Your task to perform on an android device: Search for Italian restaurants on Maps Image 0: 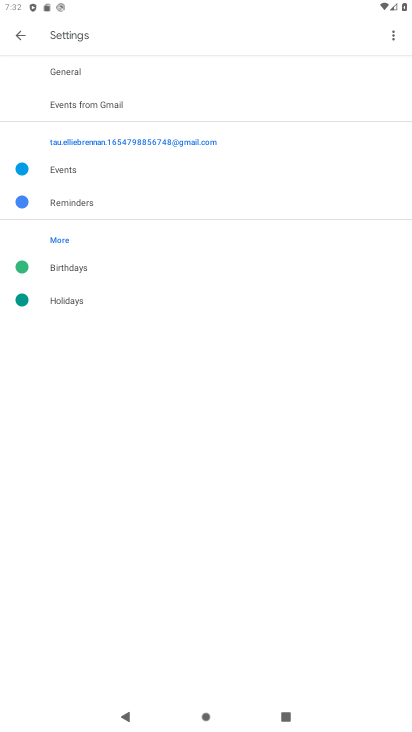
Step 0: press home button
Your task to perform on an android device: Search for Italian restaurants on Maps Image 1: 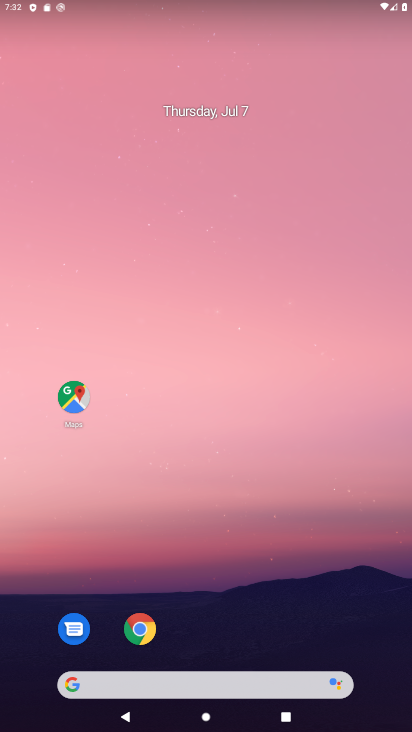
Step 1: drag from (361, 603) to (394, 81)
Your task to perform on an android device: Search for Italian restaurants on Maps Image 2: 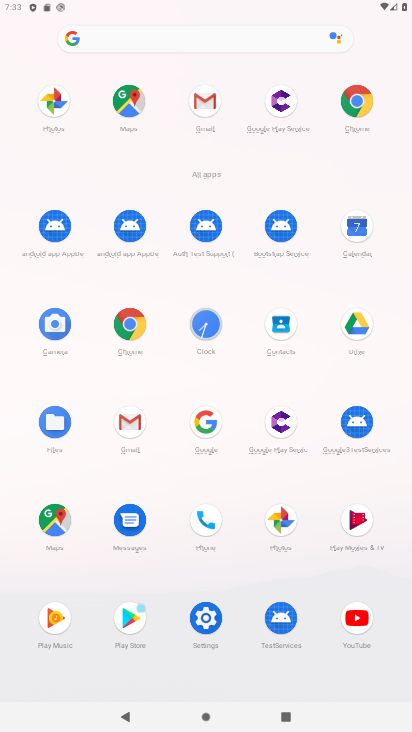
Step 2: click (58, 517)
Your task to perform on an android device: Search for Italian restaurants on Maps Image 3: 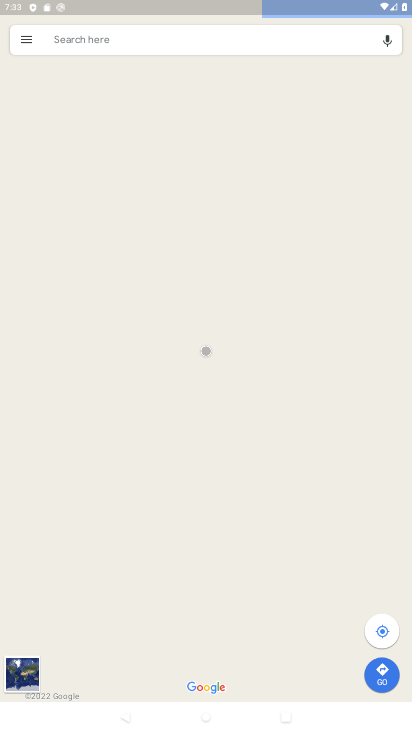
Step 3: click (187, 39)
Your task to perform on an android device: Search for Italian restaurants on Maps Image 4: 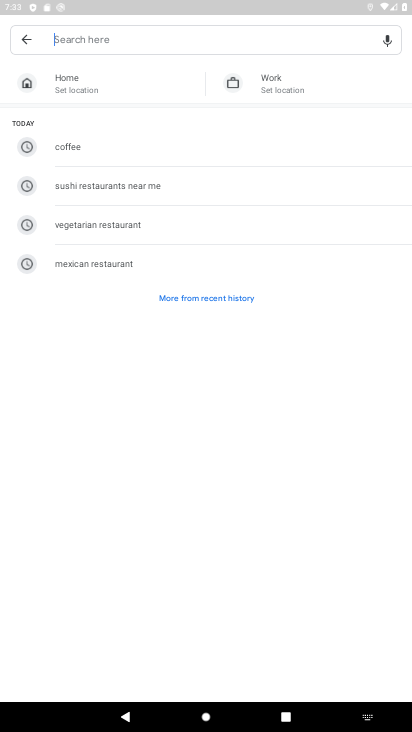
Step 4: type "italian restaurants"
Your task to perform on an android device: Search for Italian restaurants on Maps Image 5: 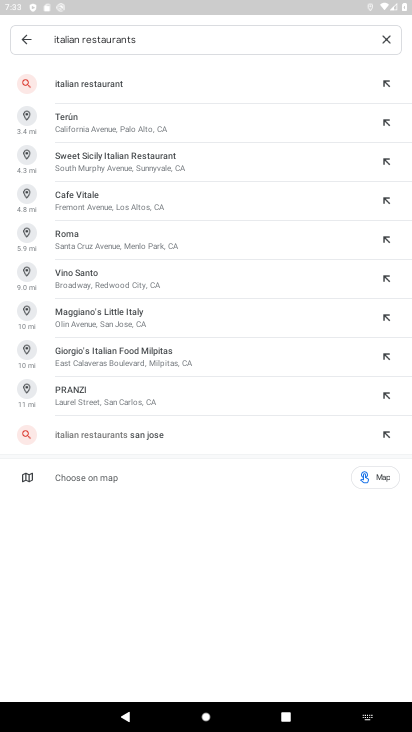
Step 5: click (148, 79)
Your task to perform on an android device: Search for Italian restaurants on Maps Image 6: 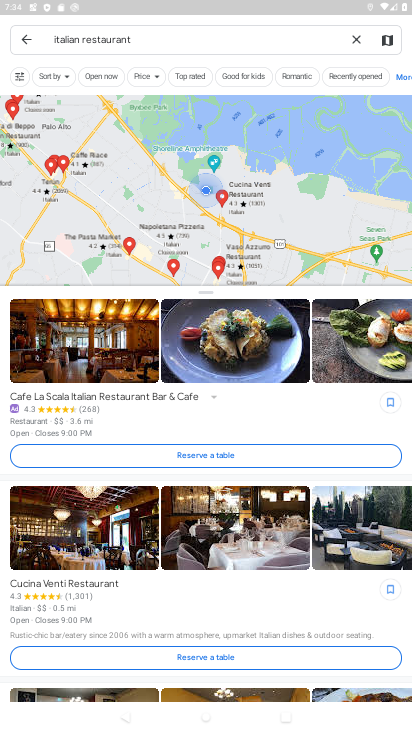
Step 6: task complete